Your task to perform on an android device: What's on the menu at Domino's? Image 0: 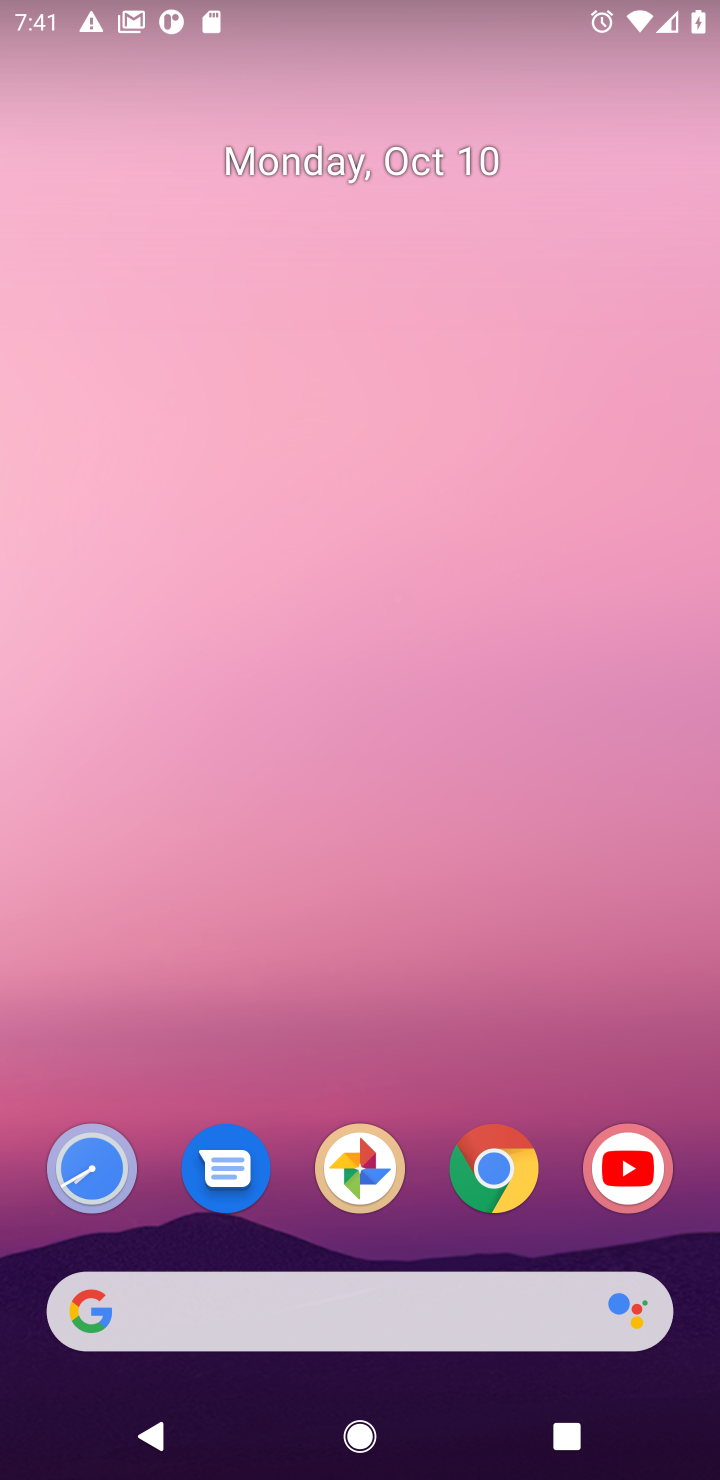
Step 0: click (496, 1176)
Your task to perform on an android device: What's on the menu at Domino's? Image 1: 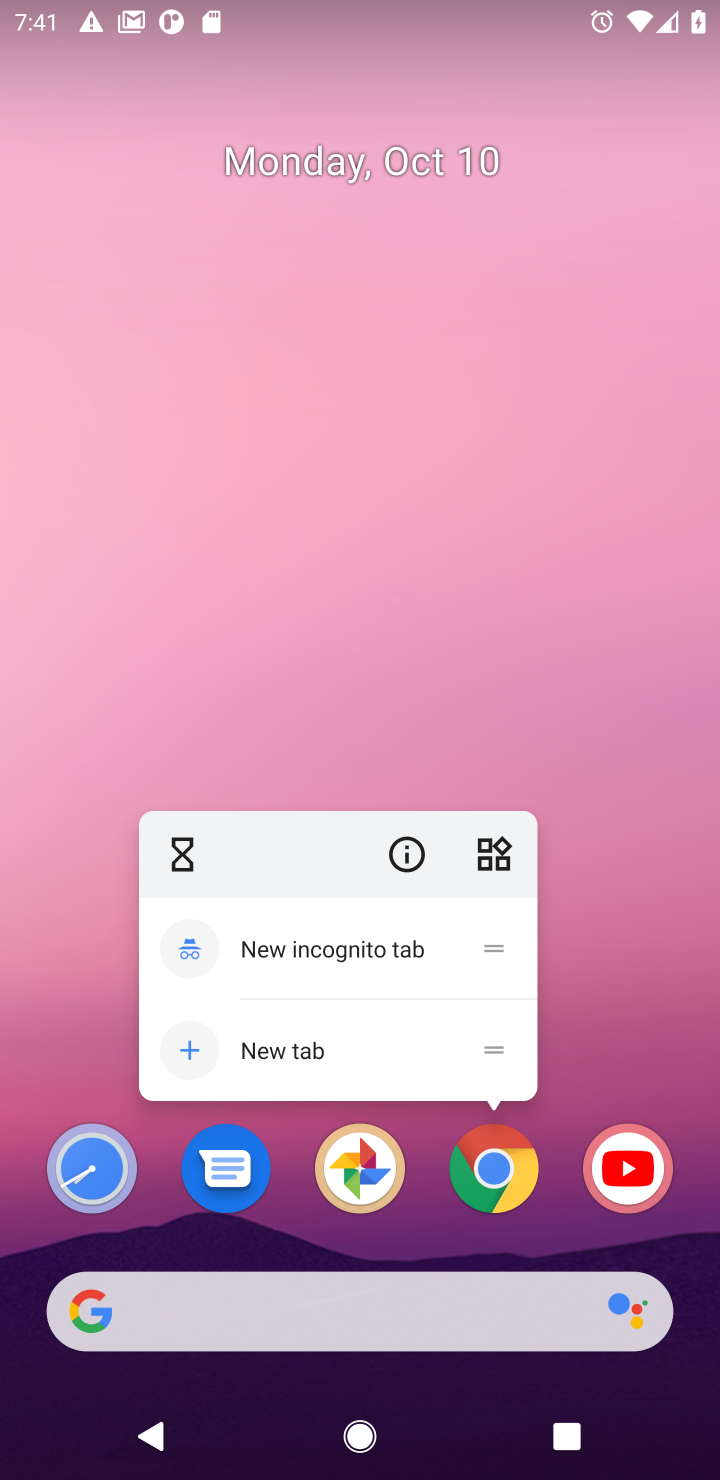
Step 1: click (496, 1176)
Your task to perform on an android device: What's on the menu at Domino's? Image 2: 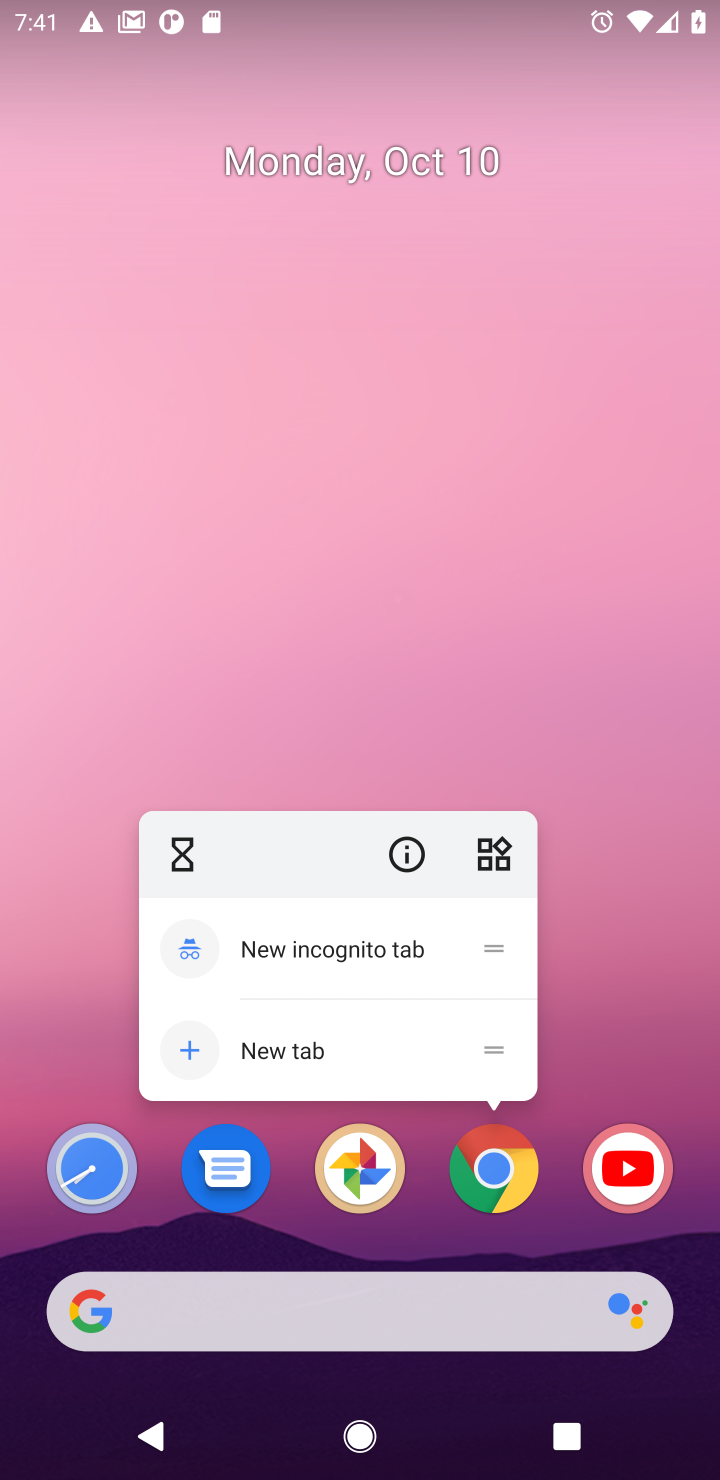
Step 2: click (498, 1176)
Your task to perform on an android device: What's on the menu at Domino's? Image 3: 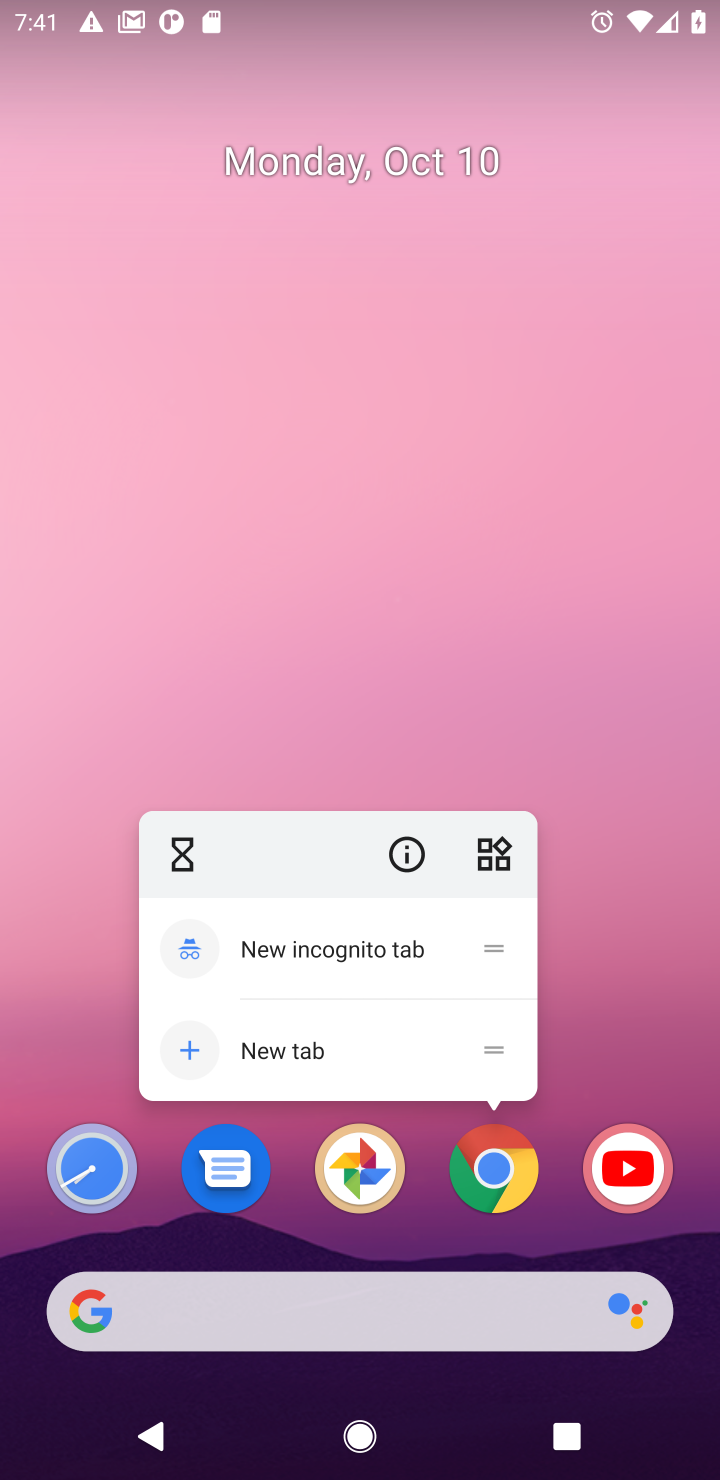
Step 3: click (498, 1176)
Your task to perform on an android device: What's on the menu at Domino's? Image 4: 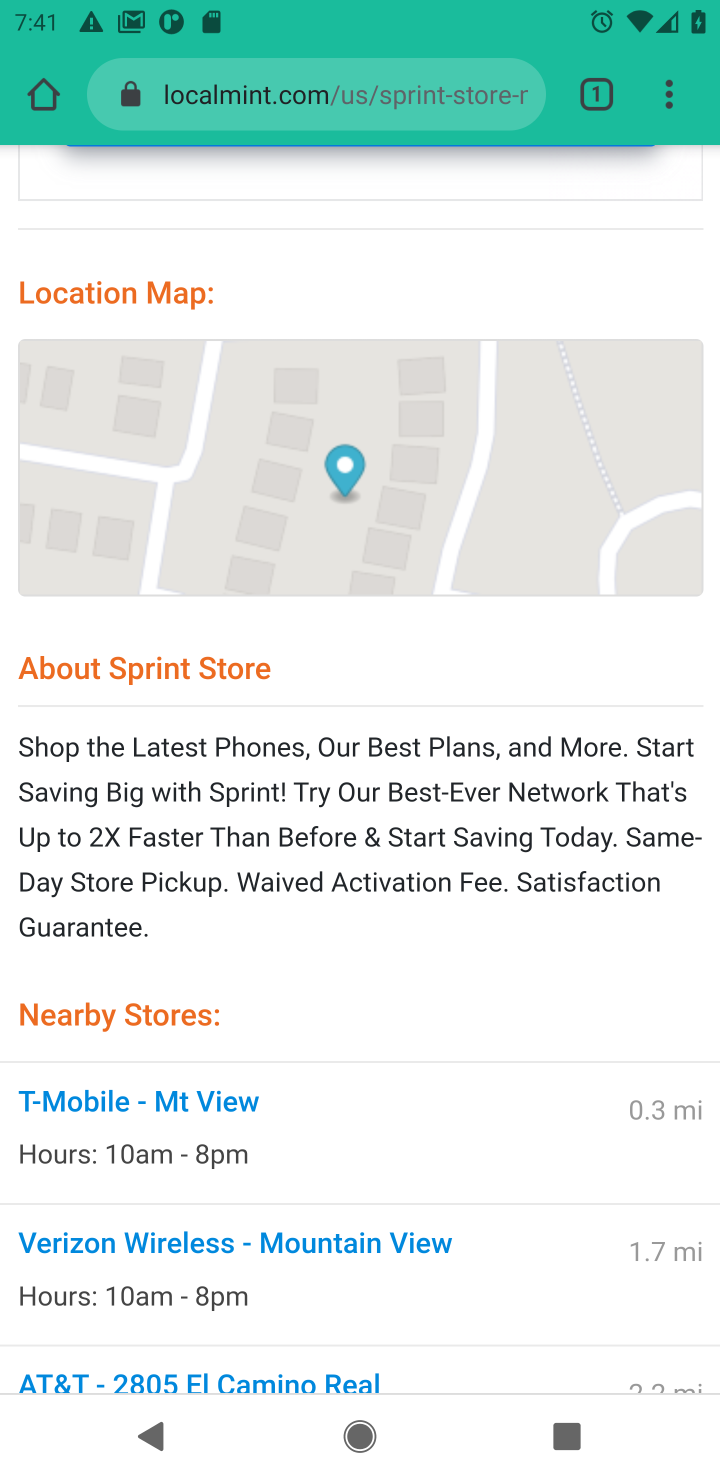
Step 4: click (343, 104)
Your task to perform on an android device: What's on the menu at Domino's? Image 5: 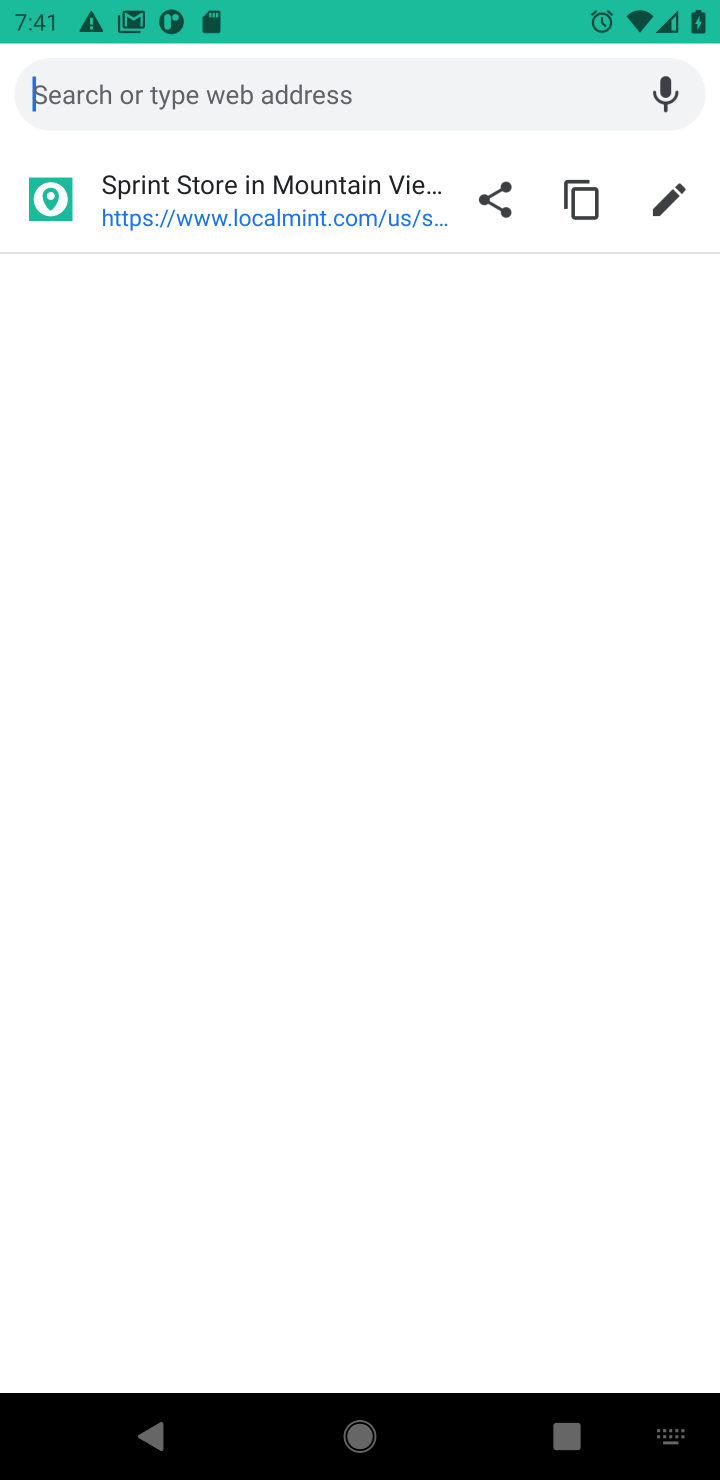
Step 5: type "domino's menu"
Your task to perform on an android device: What's on the menu at Domino's? Image 6: 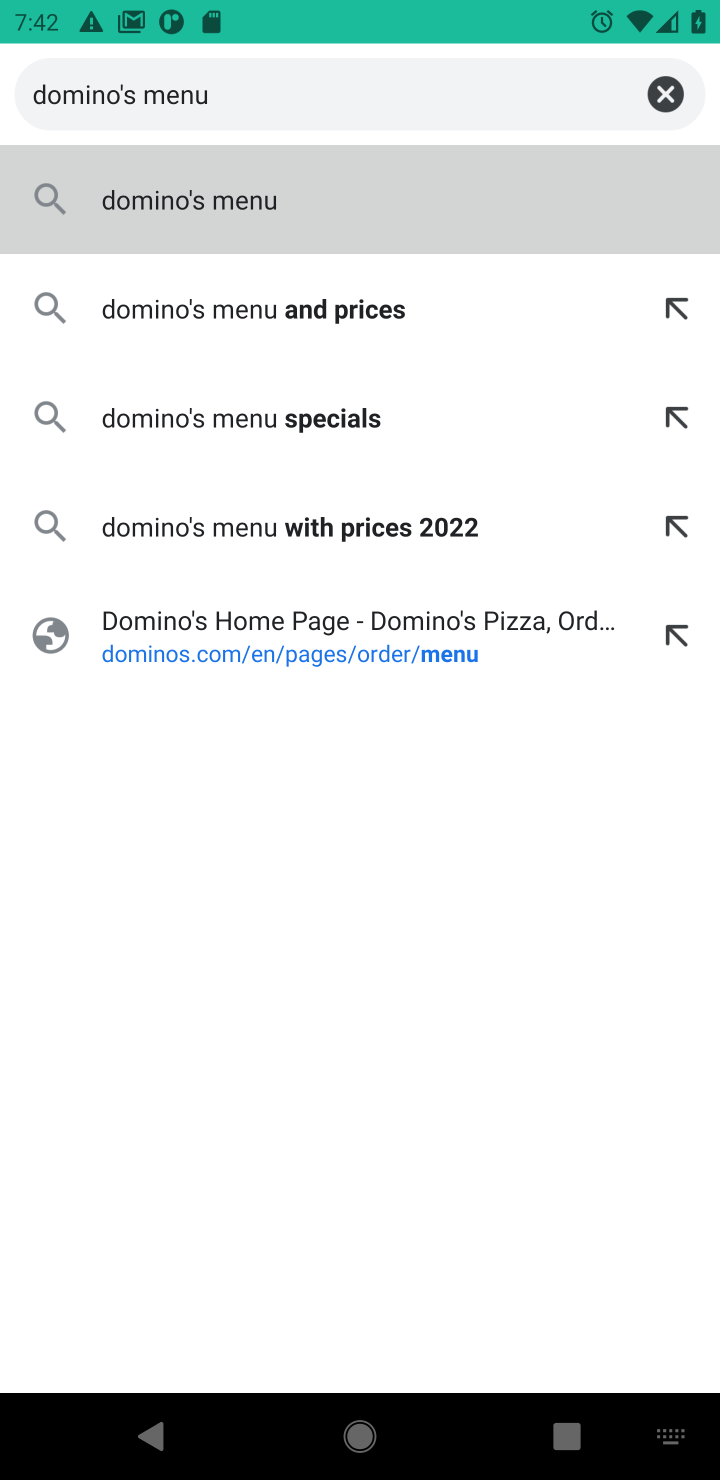
Step 6: click (202, 318)
Your task to perform on an android device: What's on the menu at Domino's? Image 7: 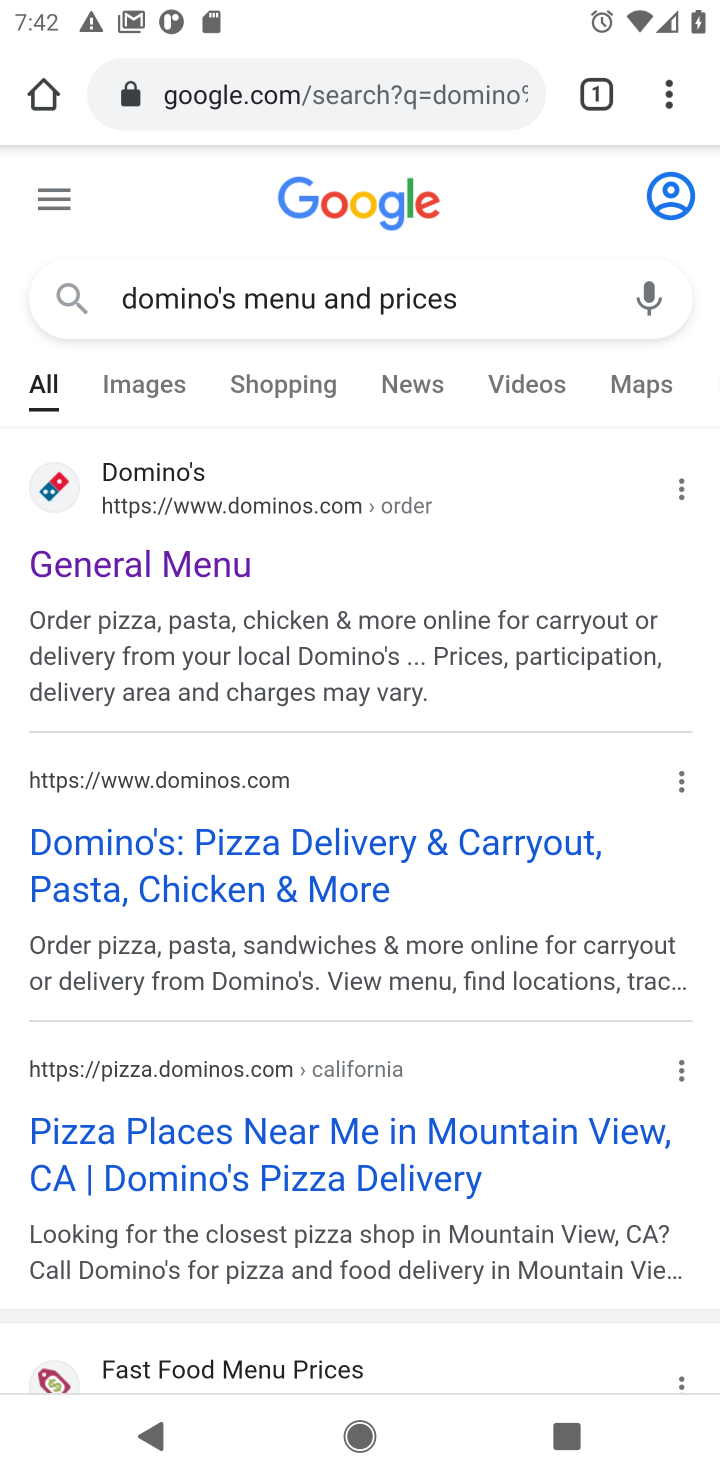
Step 7: click (298, 383)
Your task to perform on an android device: What's on the menu at Domino's? Image 8: 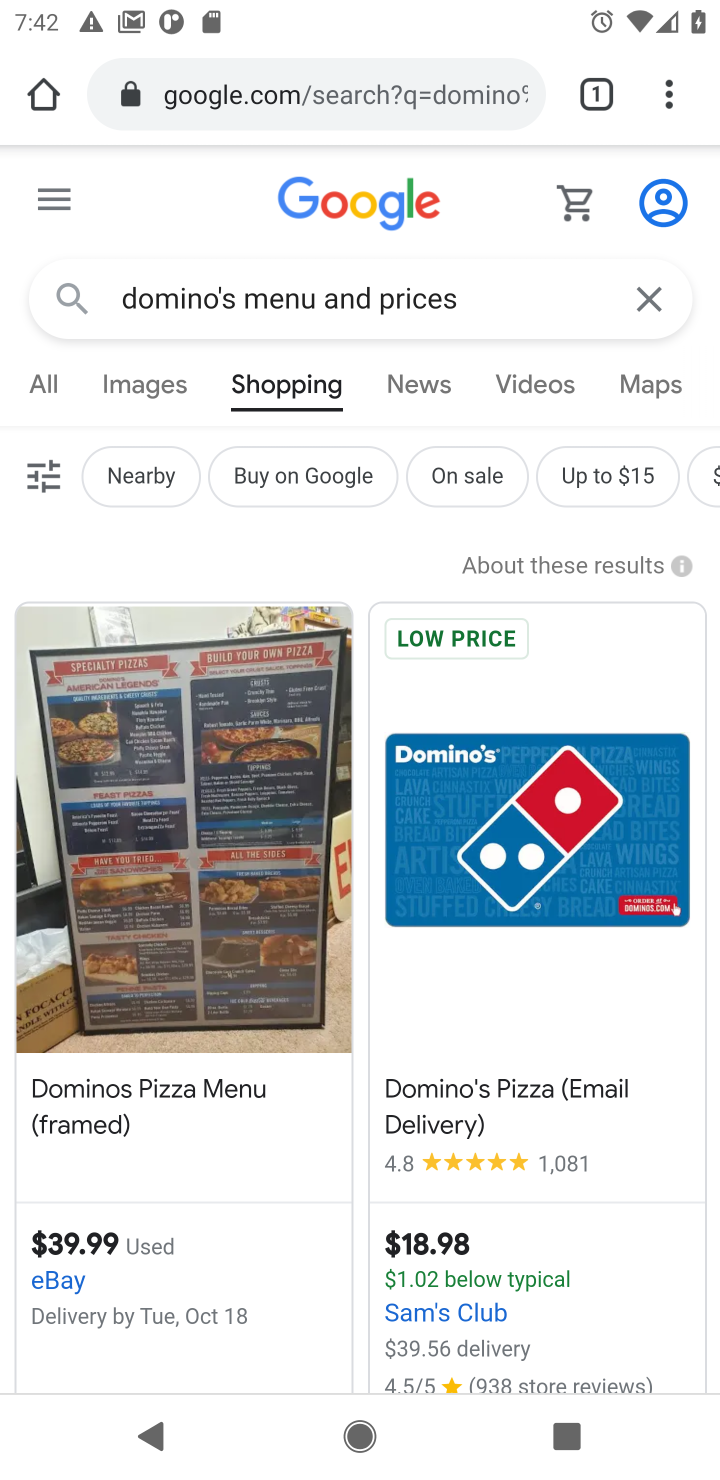
Step 8: task complete